Your task to perform on an android device: Open Maps and search for coffee Image 0: 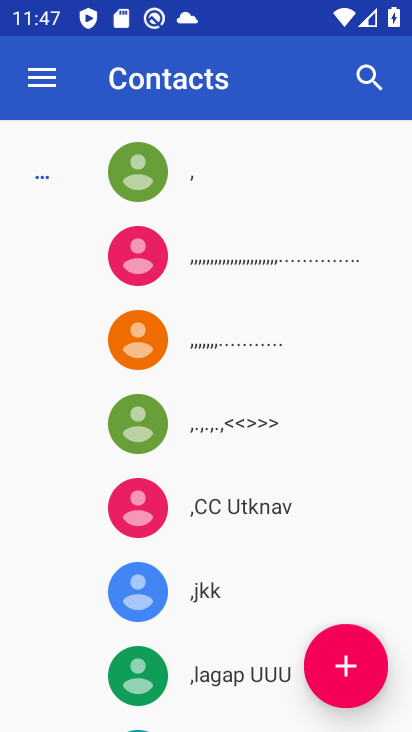
Step 0: press home button
Your task to perform on an android device: Open Maps and search for coffee Image 1: 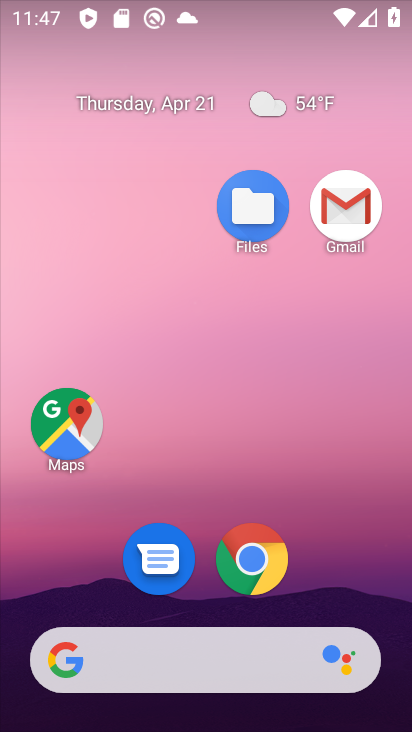
Step 1: click (81, 405)
Your task to perform on an android device: Open Maps and search for coffee Image 2: 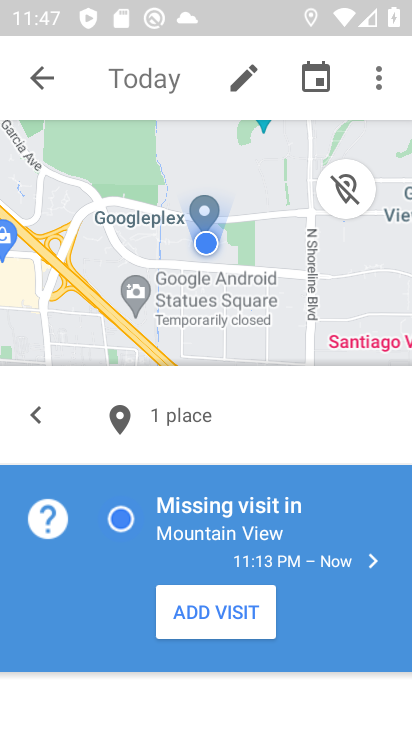
Step 2: click (32, 71)
Your task to perform on an android device: Open Maps and search for coffee Image 3: 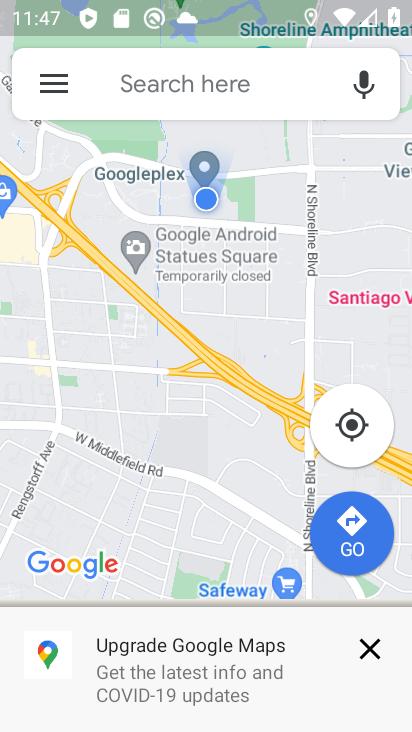
Step 3: click (138, 81)
Your task to perform on an android device: Open Maps and search for coffee Image 4: 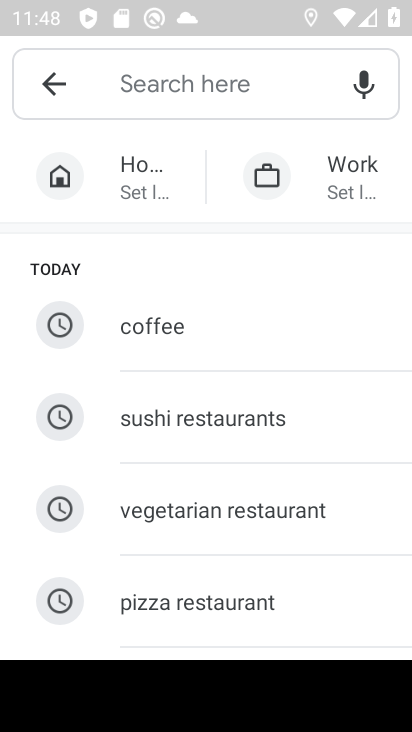
Step 4: type "coffee"
Your task to perform on an android device: Open Maps and search for coffee Image 5: 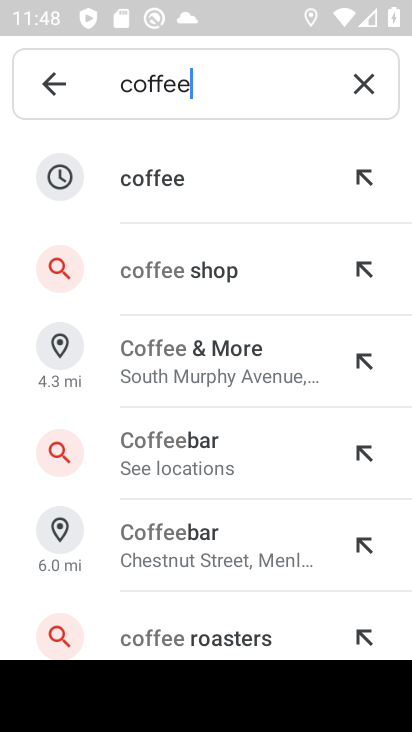
Step 5: click (182, 179)
Your task to perform on an android device: Open Maps and search for coffee Image 6: 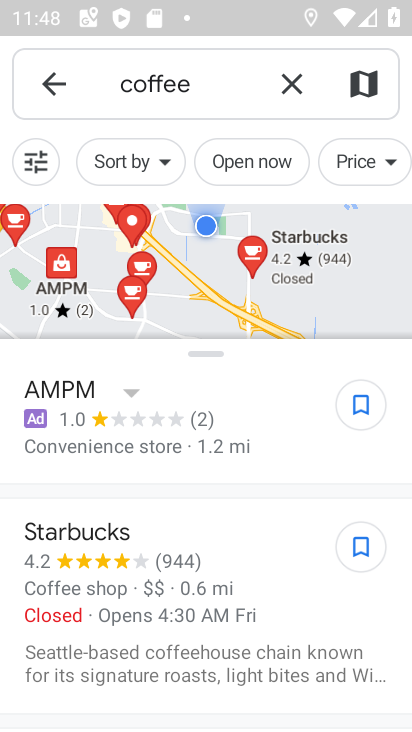
Step 6: task complete